Your task to perform on an android device: change keyboard looks Image 0: 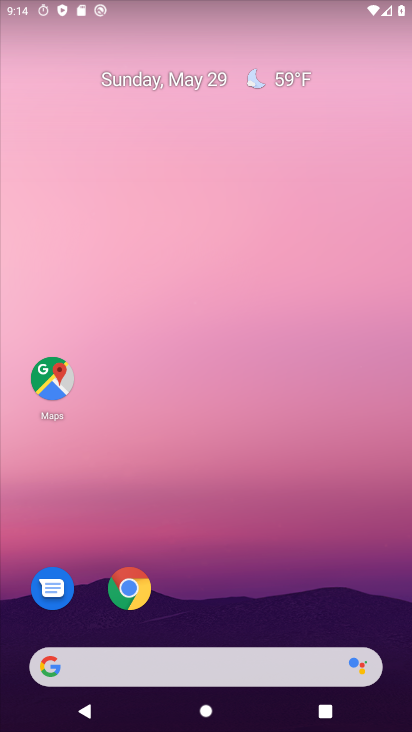
Step 0: drag from (188, 618) to (264, 46)
Your task to perform on an android device: change keyboard looks Image 1: 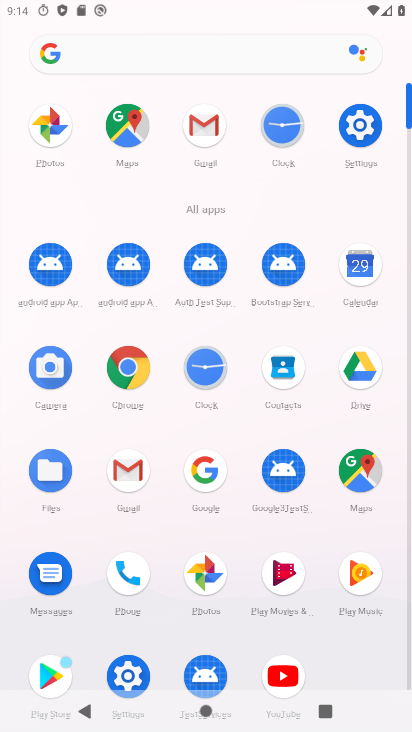
Step 1: click (360, 135)
Your task to perform on an android device: change keyboard looks Image 2: 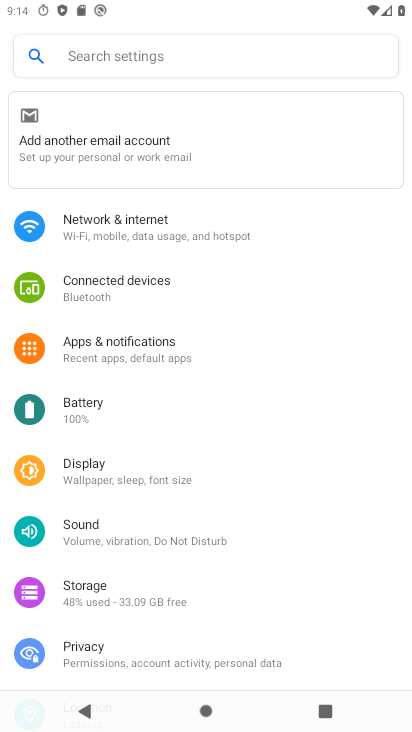
Step 2: drag from (150, 605) to (196, 250)
Your task to perform on an android device: change keyboard looks Image 3: 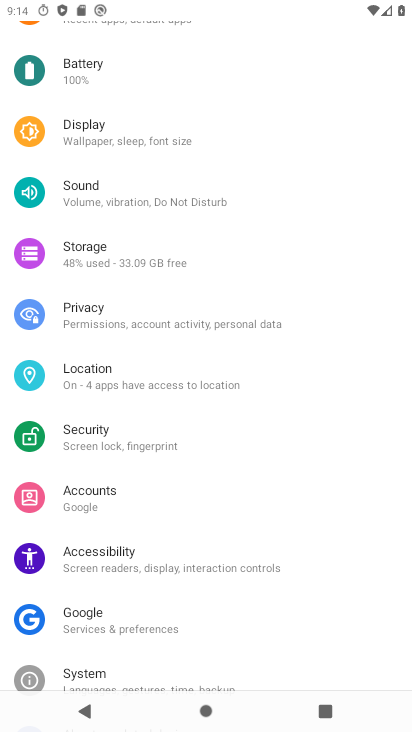
Step 3: drag from (123, 624) to (129, 411)
Your task to perform on an android device: change keyboard looks Image 4: 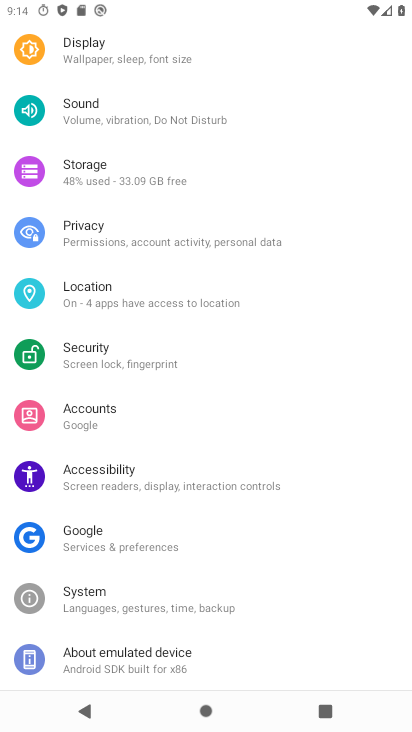
Step 4: click (108, 608)
Your task to perform on an android device: change keyboard looks Image 5: 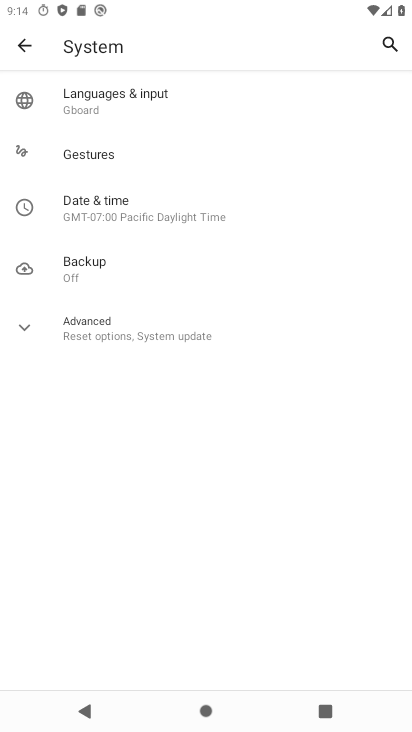
Step 5: click (128, 114)
Your task to perform on an android device: change keyboard looks Image 6: 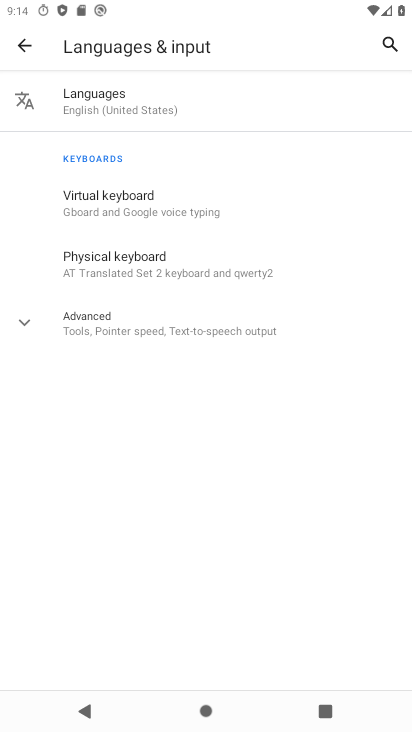
Step 6: click (144, 214)
Your task to perform on an android device: change keyboard looks Image 7: 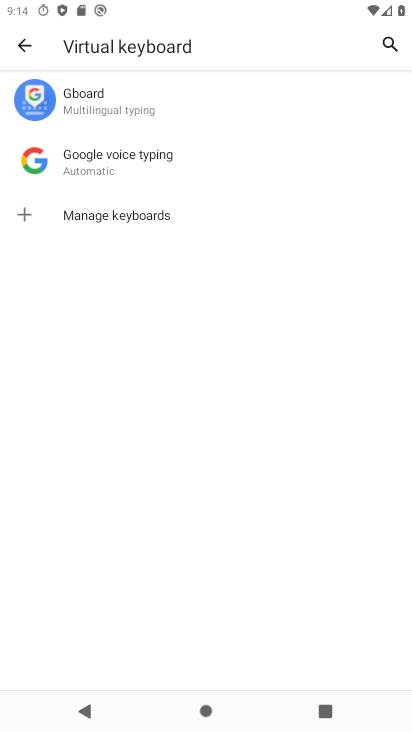
Step 7: click (122, 104)
Your task to perform on an android device: change keyboard looks Image 8: 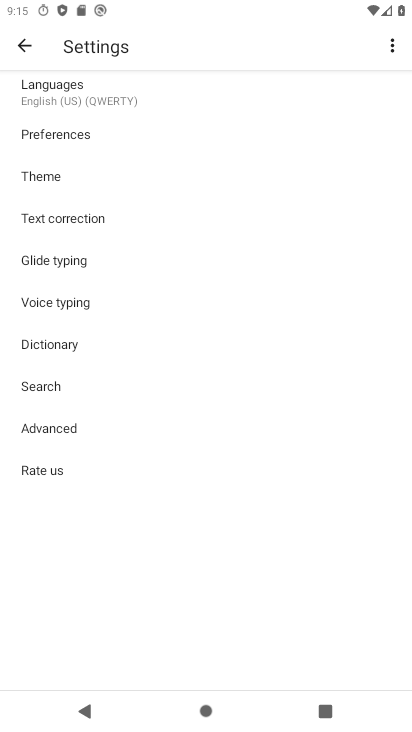
Step 8: click (60, 169)
Your task to perform on an android device: change keyboard looks Image 9: 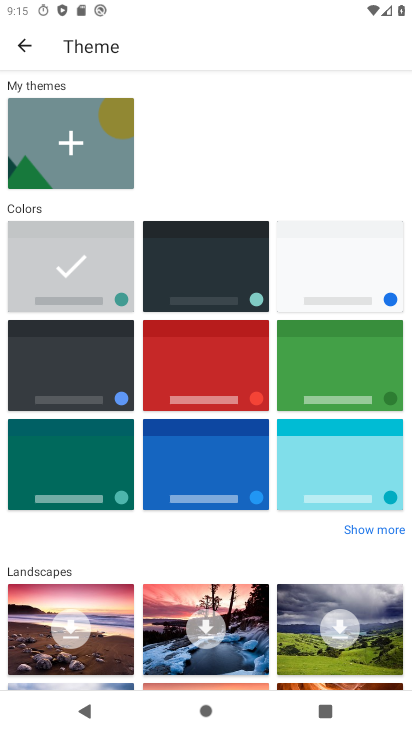
Step 9: click (213, 256)
Your task to perform on an android device: change keyboard looks Image 10: 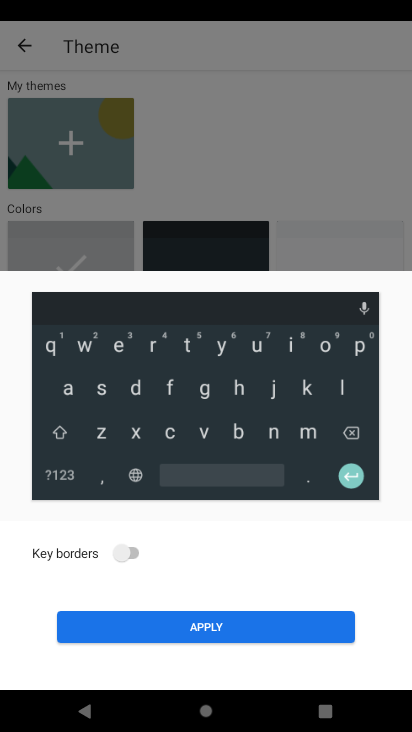
Step 10: click (259, 626)
Your task to perform on an android device: change keyboard looks Image 11: 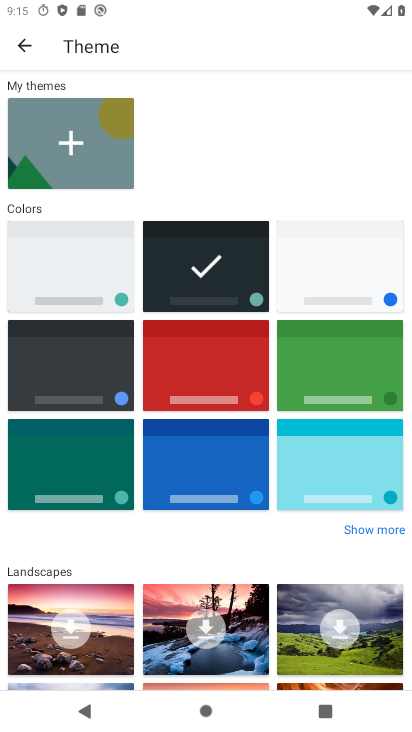
Step 11: task complete